Your task to perform on an android device: Go to Yahoo.com Image 0: 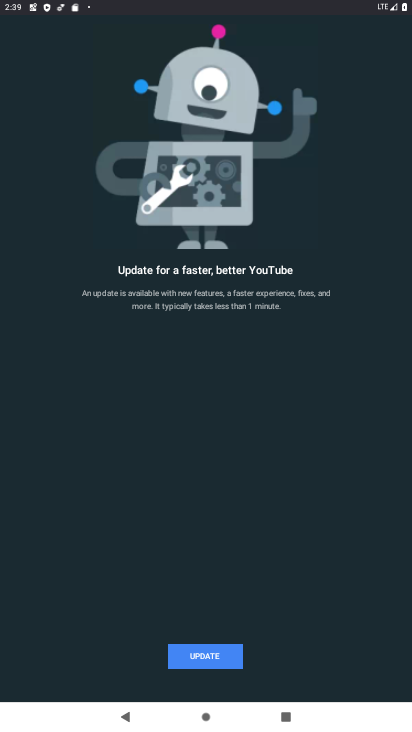
Step 0: press home button
Your task to perform on an android device: Go to Yahoo.com Image 1: 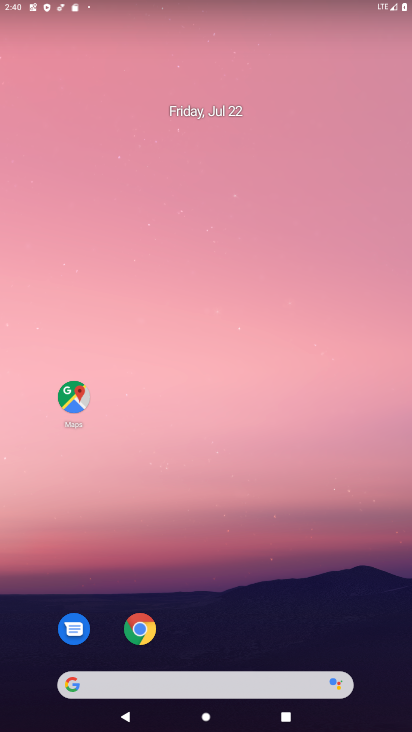
Step 1: click (153, 624)
Your task to perform on an android device: Go to Yahoo.com Image 2: 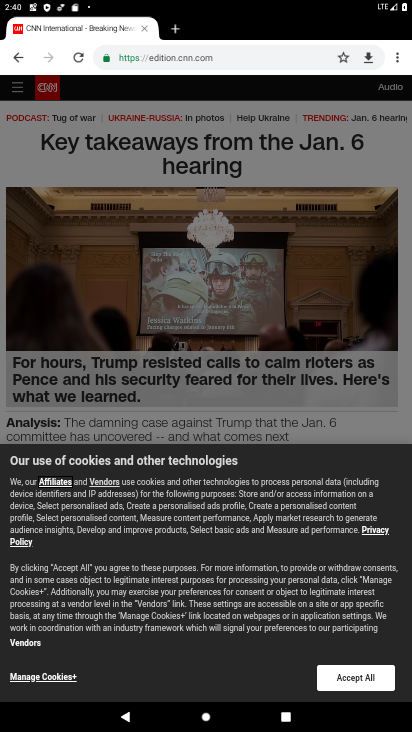
Step 2: click (203, 59)
Your task to perform on an android device: Go to Yahoo.com Image 3: 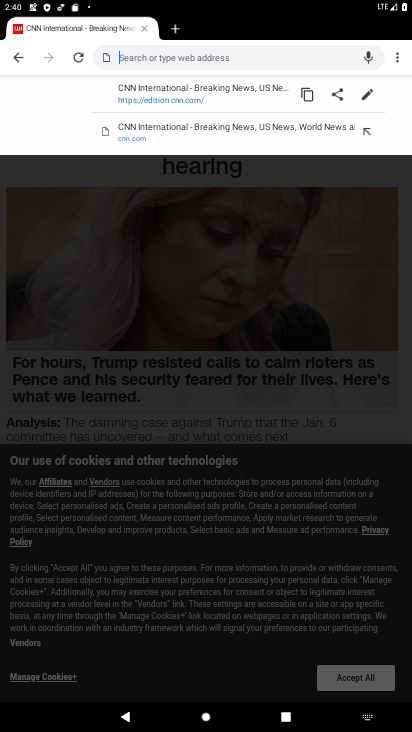
Step 3: type "yahoo.com"
Your task to perform on an android device: Go to Yahoo.com Image 4: 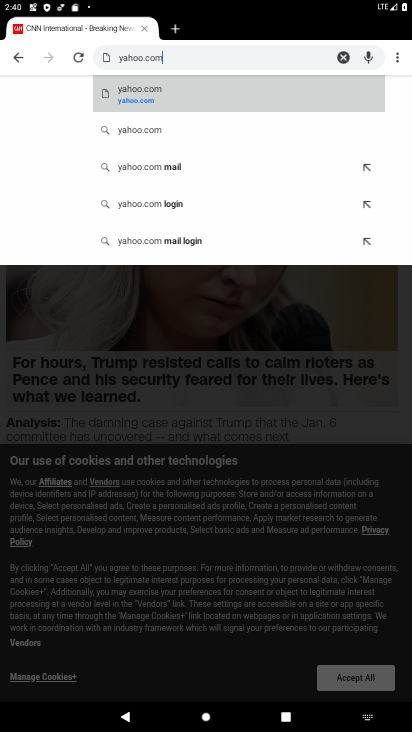
Step 4: click (213, 89)
Your task to perform on an android device: Go to Yahoo.com Image 5: 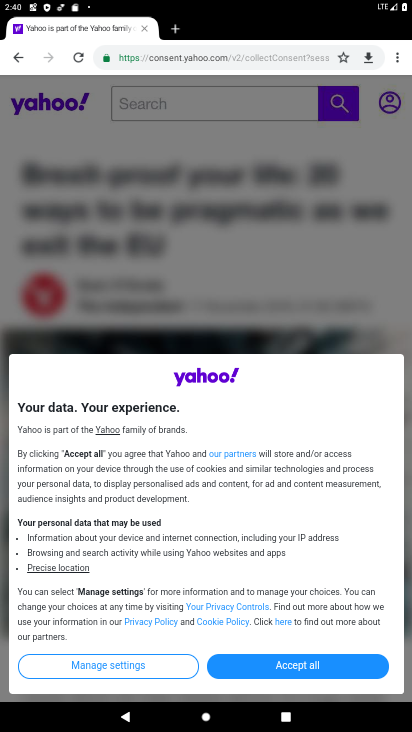
Step 5: task complete